Your task to perform on an android device: turn smart compose on in the gmail app Image 0: 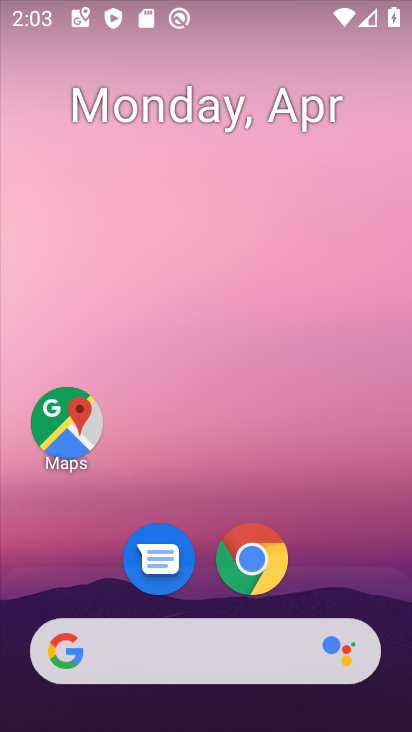
Step 0: drag from (354, 608) to (217, 126)
Your task to perform on an android device: turn smart compose on in the gmail app Image 1: 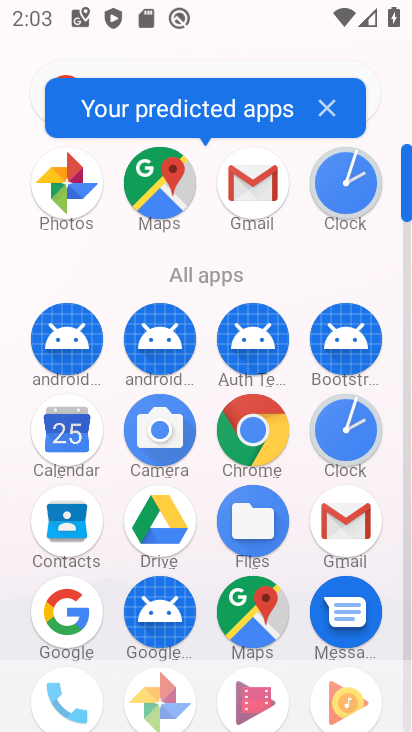
Step 1: click (233, 168)
Your task to perform on an android device: turn smart compose on in the gmail app Image 2: 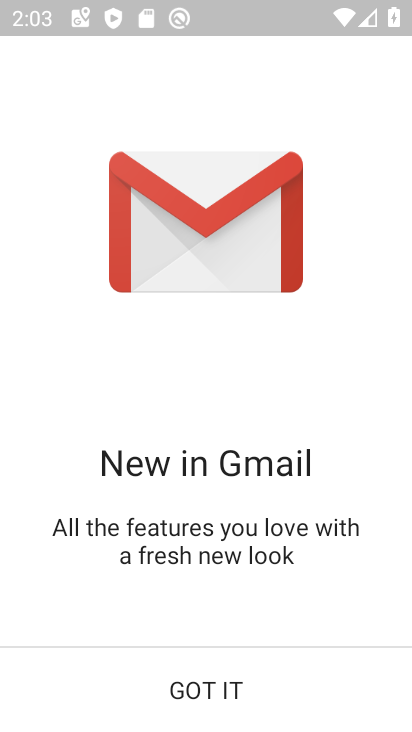
Step 2: click (195, 698)
Your task to perform on an android device: turn smart compose on in the gmail app Image 3: 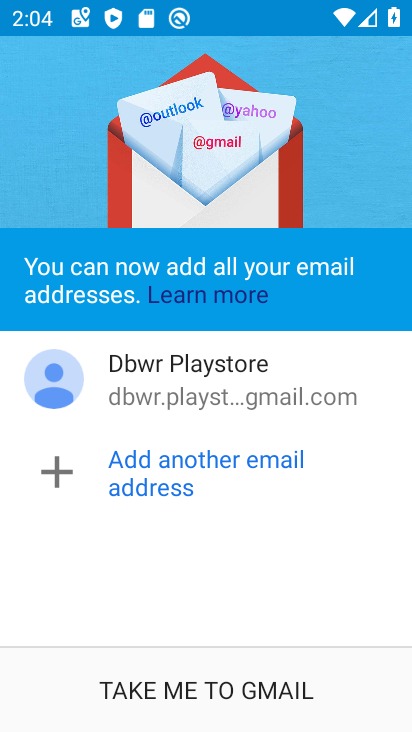
Step 3: click (195, 698)
Your task to perform on an android device: turn smart compose on in the gmail app Image 4: 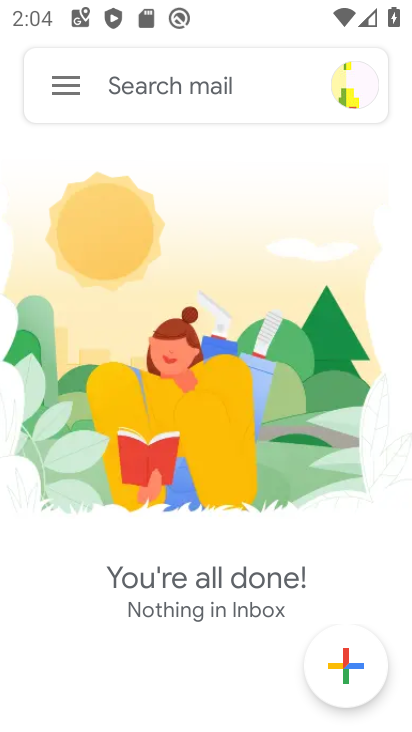
Step 4: click (62, 97)
Your task to perform on an android device: turn smart compose on in the gmail app Image 5: 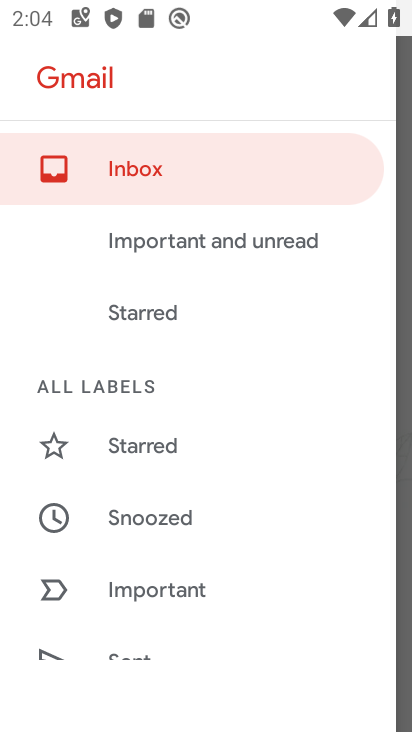
Step 5: drag from (297, 652) to (297, 71)
Your task to perform on an android device: turn smart compose on in the gmail app Image 6: 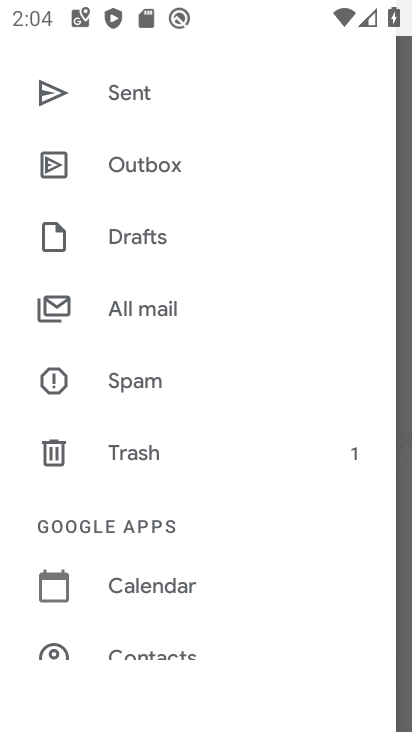
Step 6: drag from (239, 559) to (254, 182)
Your task to perform on an android device: turn smart compose on in the gmail app Image 7: 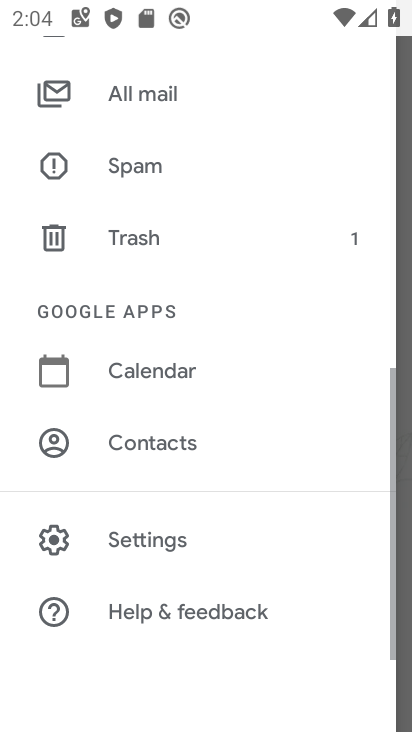
Step 7: click (209, 551)
Your task to perform on an android device: turn smart compose on in the gmail app Image 8: 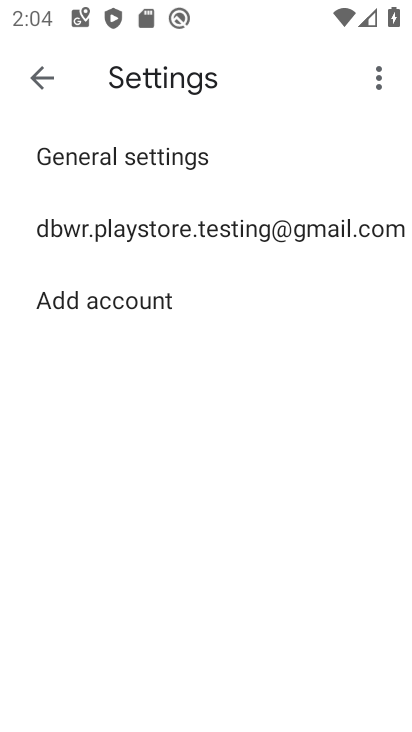
Step 8: click (271, 228)
Your task to perform on an android device: turn smart compose on in the gmail app Image 9: 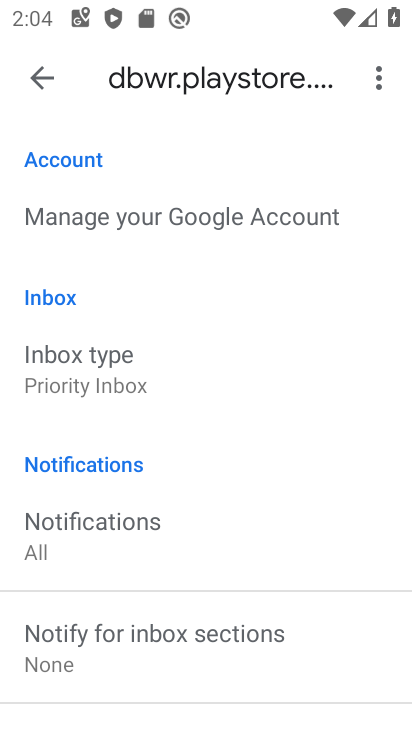
Step 9: task complete